Your task to perform on an android device: When is my next meeting? Image 0: 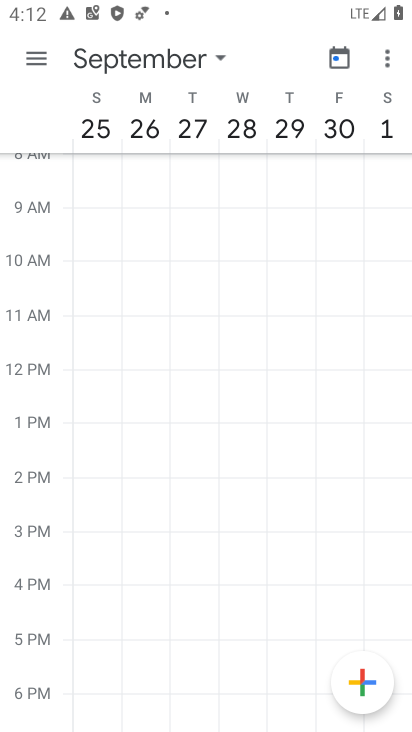
Step 0: press home button
Your task to perform on an android device: When is my next meeting? Image 1: 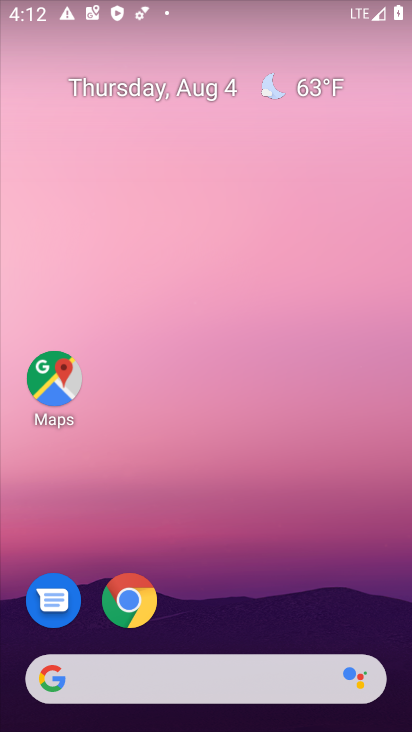
Step 1: drag from (257, 633) to (320, 108)
Your task to perform on an android device: When is my next meeting? Image 2: 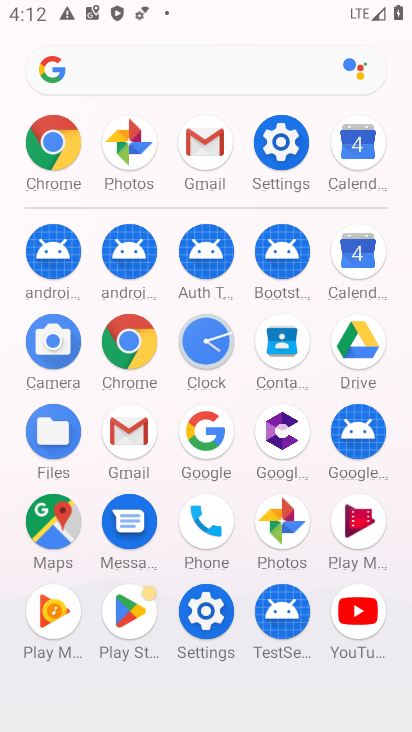
Step 2: click (363, 258)
Your task to perform on an android device: When is my next meeting? Image 3: 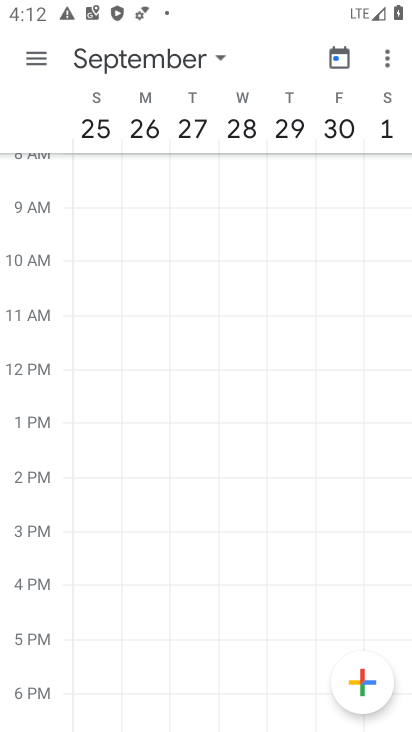
Step 3: click (146, 72)
Your task to perform on an android device: When is my next meeting? Image 4: 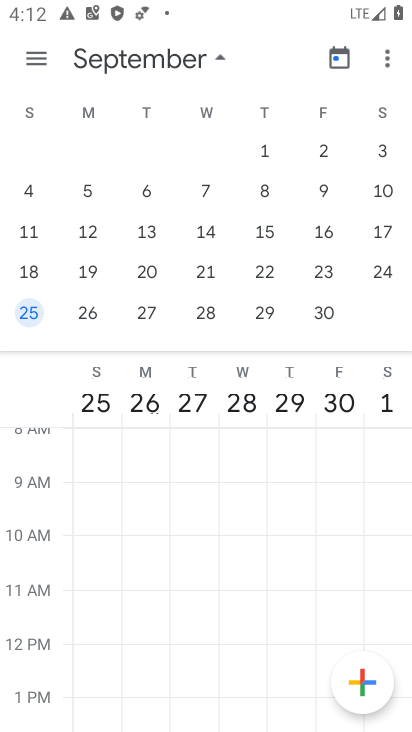
Step 4: task complete